Your task to perform on an android device: turn smart compose on in the gmail app Image 0: 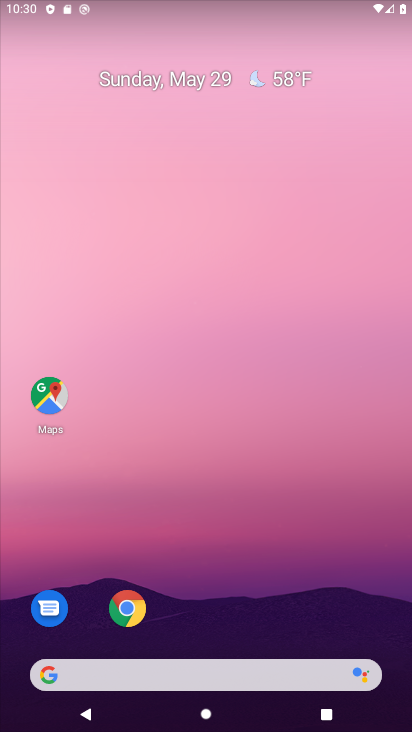
Step 0: drag from (206, 619) to (222, 236)
Your task to perform on an android device: turn smart compose on in the gmail app Image 1: 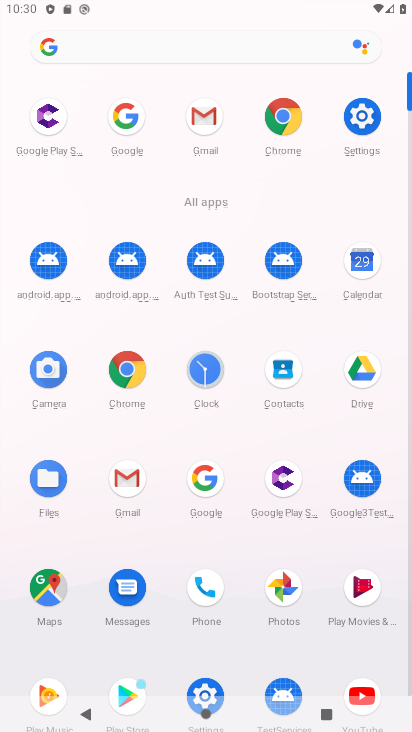
Step 1: click (209, 127)
Your task to perform on an android device: turn smart compose on in the gmail app Image 2: 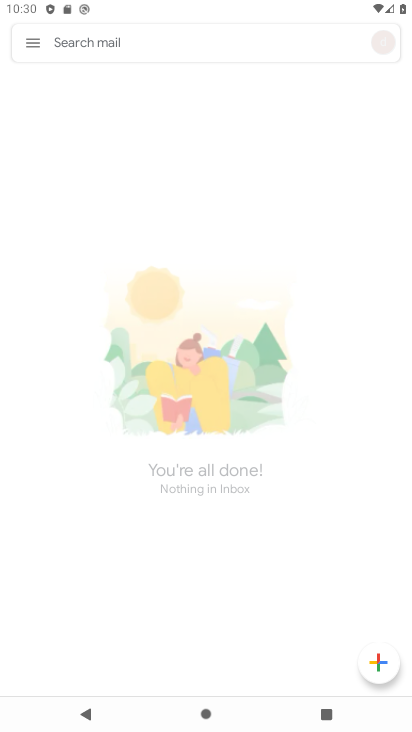
Step 2: click (36, 38)
Your task to perform on an android device: turn smart compose on in the gmail app Image 3: 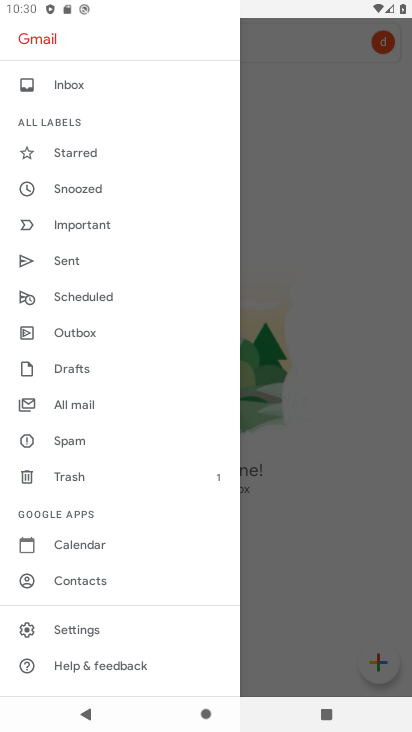
Step 3: click (101, 630)
Your task to perform on an android device: turn smart compose on in the gmail app Image 4: 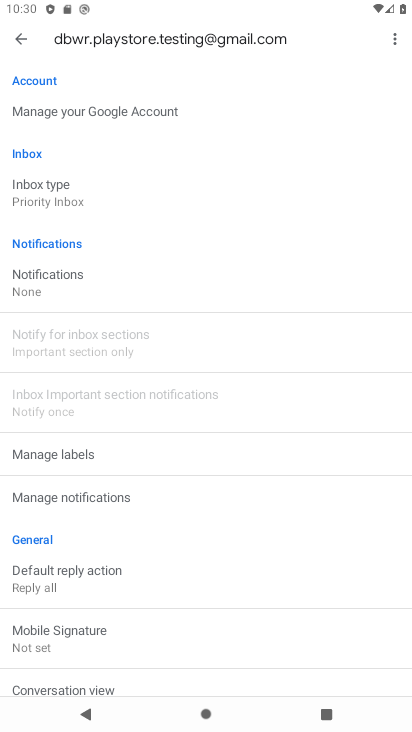
Step 4: drag from (78, 677) to (163, 180)
Your task to perform on an android device: turn smart compose on in the gmail app Image 5: 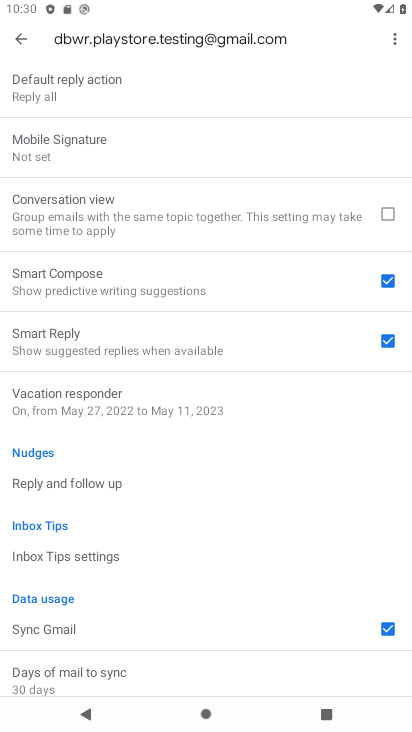
Step 5: click (78, 337)
Your task to perform on an android device: turn smart compose on in the gmail app Image 6: 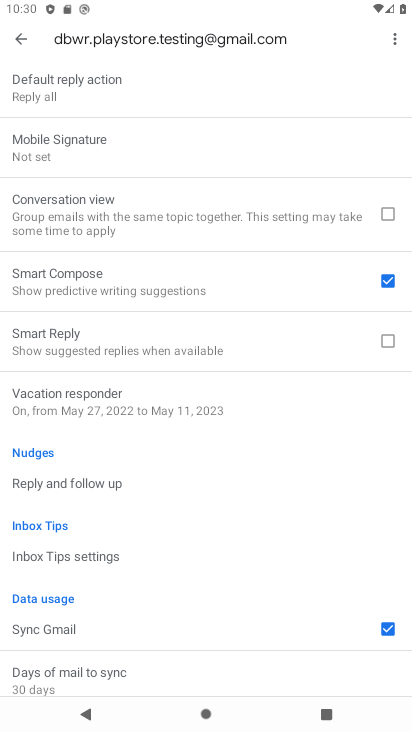
Step 6: click (26, 41)
Your task to perform on an android device: turn smart compose on in the gmail app Image 7: 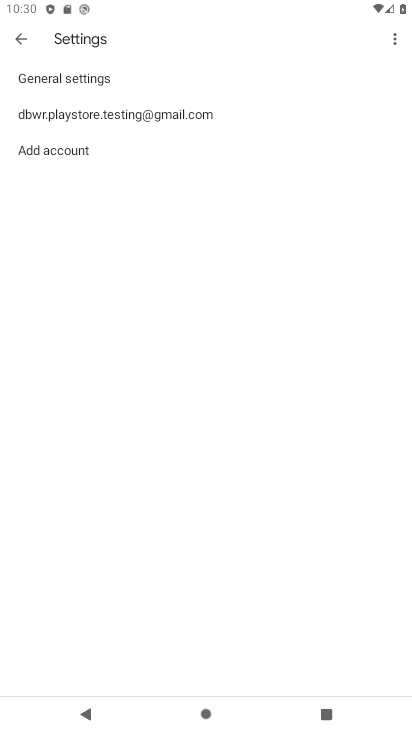
Step 7: click (92, 114)
Your task to perform on an android device: turn smart compose on in the gmail app Image 8: 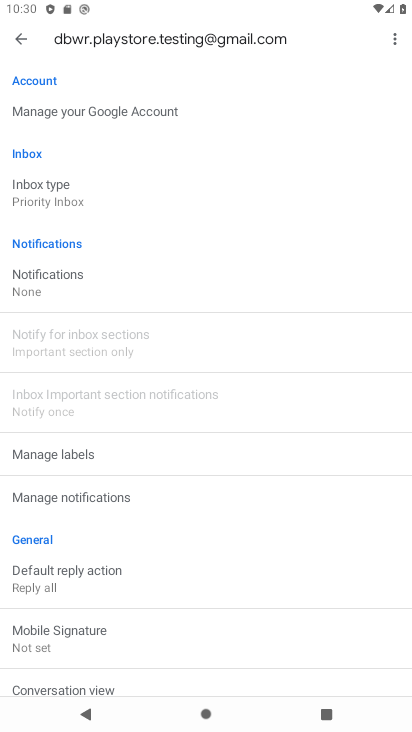
Step 8: task complete